Your task to perform on an android device: open app "Expedia: Hotels, Flights & Car" Image 0: 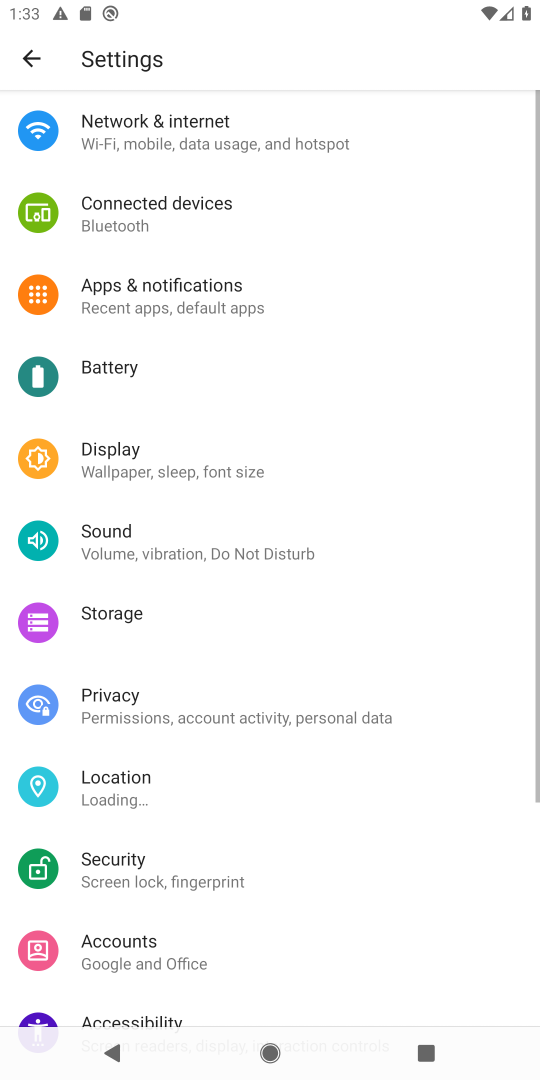
Step 0: press home button
Your task to perform on an android device: open app "Expedia: Hotels, Flights & Car" Image 1: 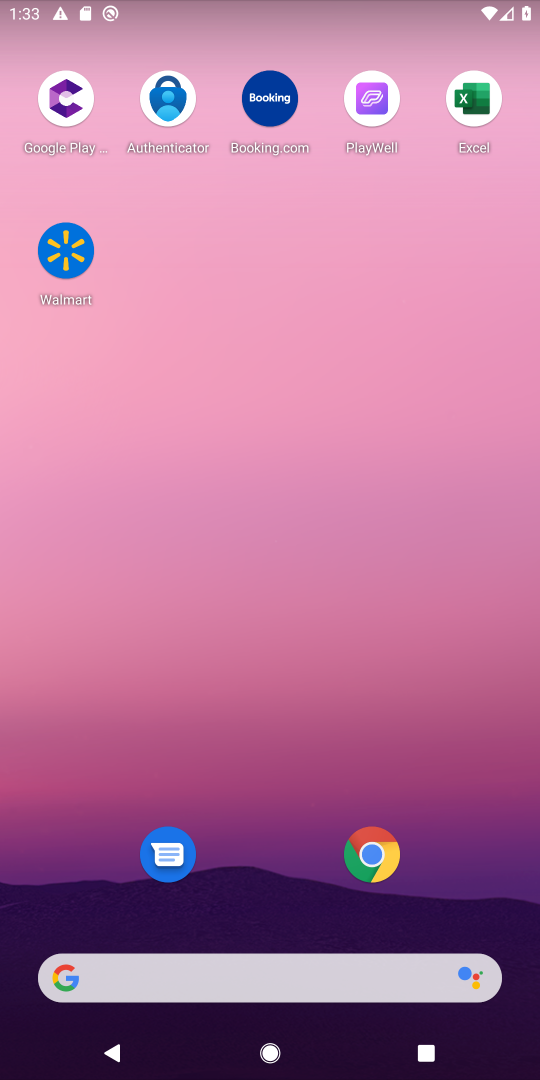
Step 1: drag from (320, 916) to (335, 70)
Your task to perform on an android device: open app "Expedia: Hotels, Flights & Car" Image 2: 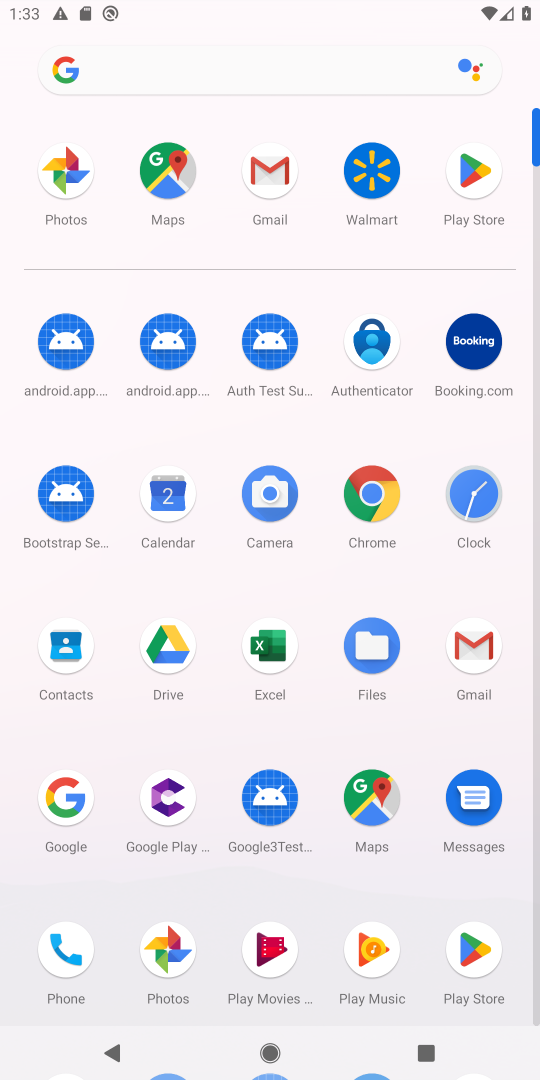
Step 2: click (473, 162)
Your task to perform on an android device: open app "Expedia: Hotels, Flights & Car" Image 3: 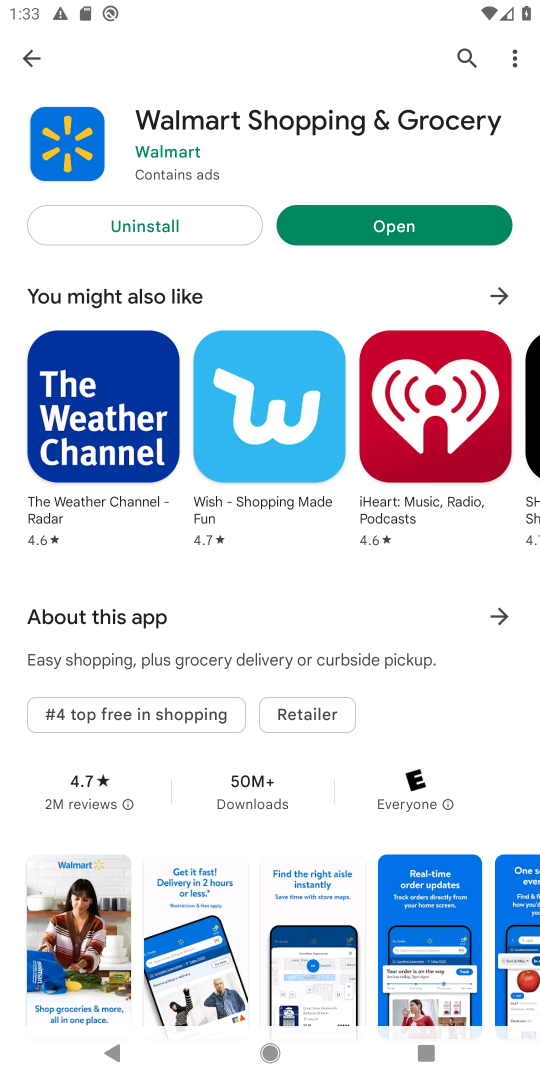
Step 3: click (464, 50)
Your task to perform on an android device: open app "Expedia: Hotels, Flights & Car" Image 4: 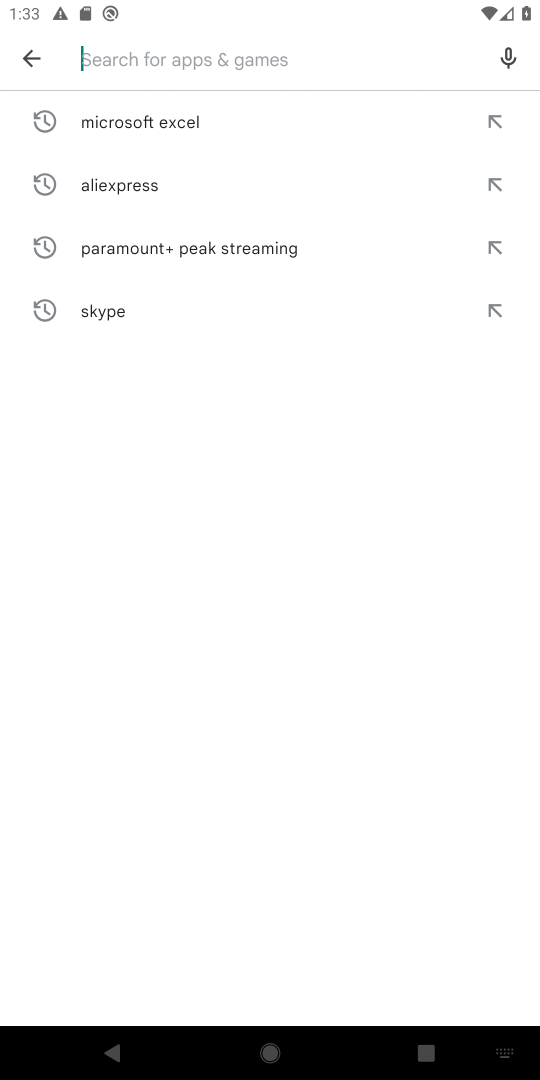
Step 4: type "Expedia: Hotels, Flights & Car"
Your task to perform on an android device: open app "Expedia: Hotels, Flights & Car" Image 5: 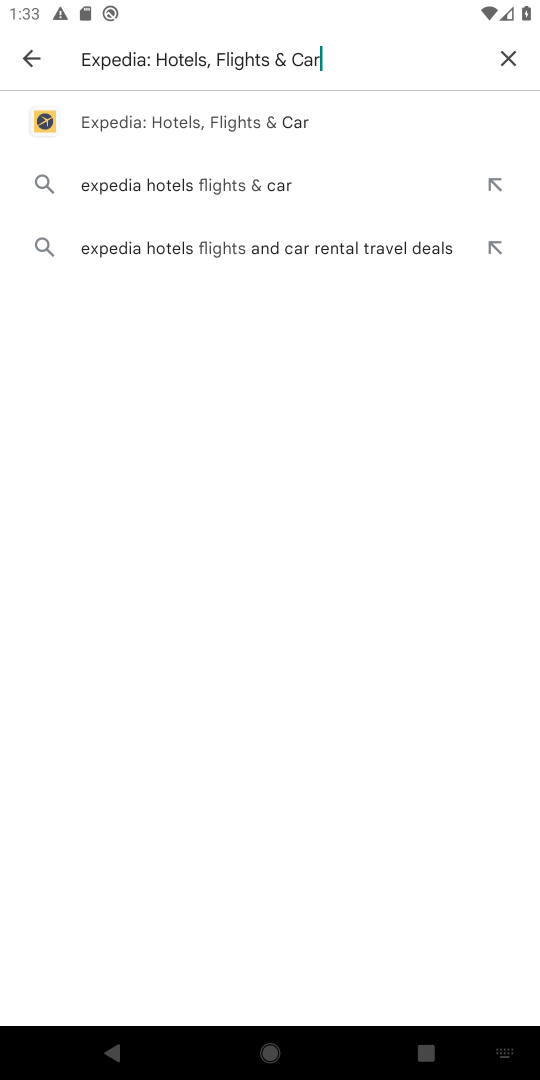
Step 5: type ""
Your task to perform on an android device: open app "Expedia: Hotels, Flights & Car" Image 6: 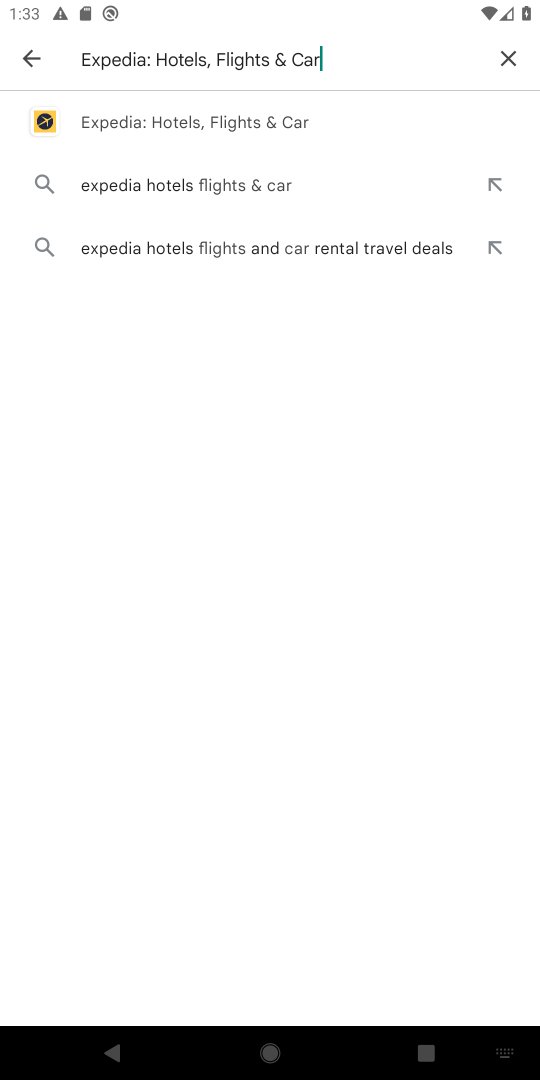
Step 6: click (189, 120)
Your task to perform on an android device: open app "Expedia: Hotels, Flights & Car" Image 7: 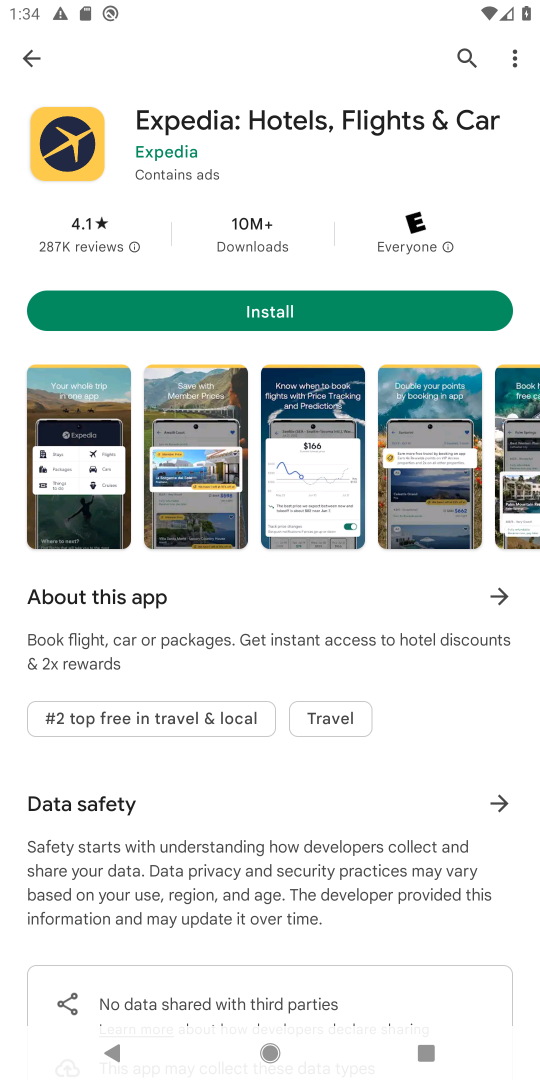
Step 7: task complete